Your task to perform on an android device: turn off picture-in-picture Image 0: 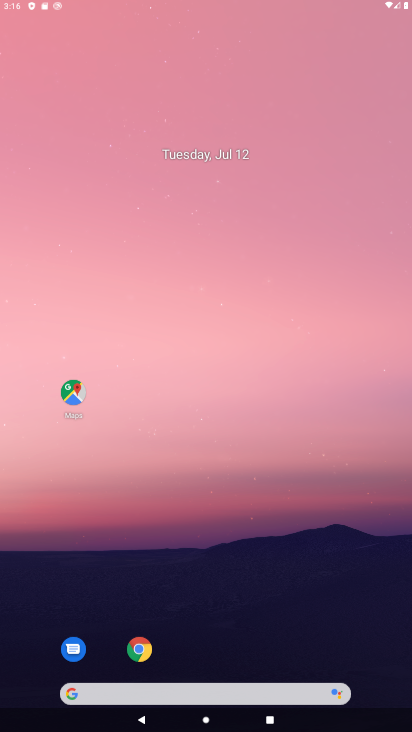
Step 0: press home button
Your task to perform on an android device: turn off picture-in-picture Image 1: 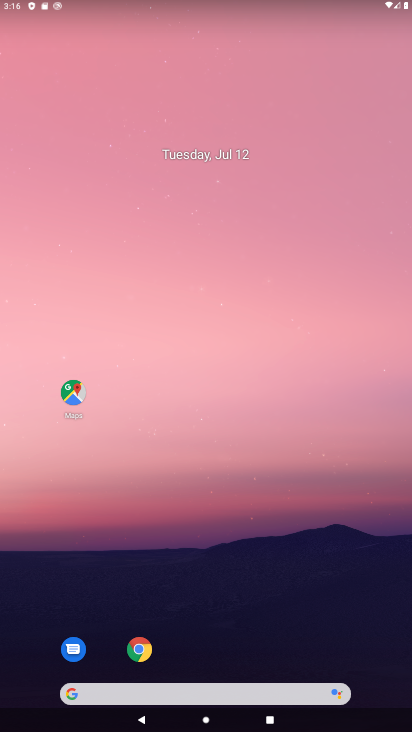
Step 1: click (137, 650)
Your task to perform on an android device: turn off picture-in-picture Image 2: 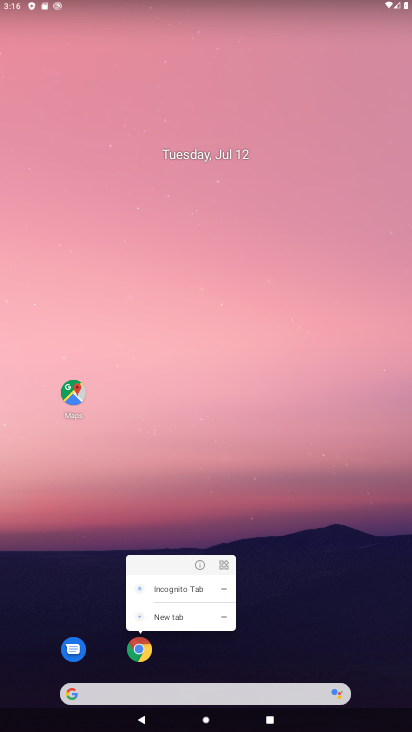
Step 2: click (194, 561)
Your task to perform on an android device: turn off picture-in-picture Image 3: 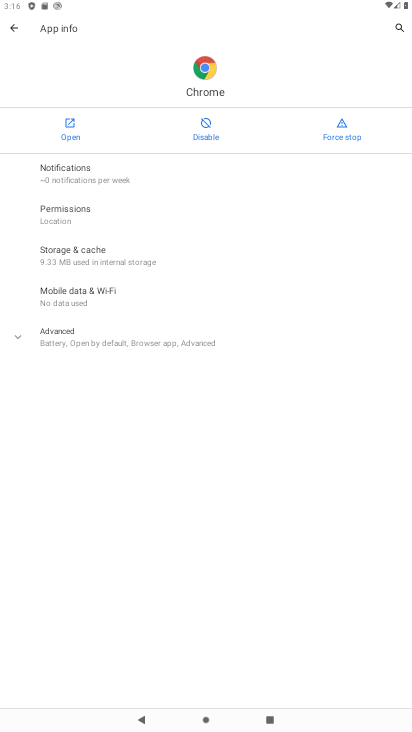
Step 3: click (16, 333)
Your task to perform on an android device: turn off picture-in-picture Image 4: 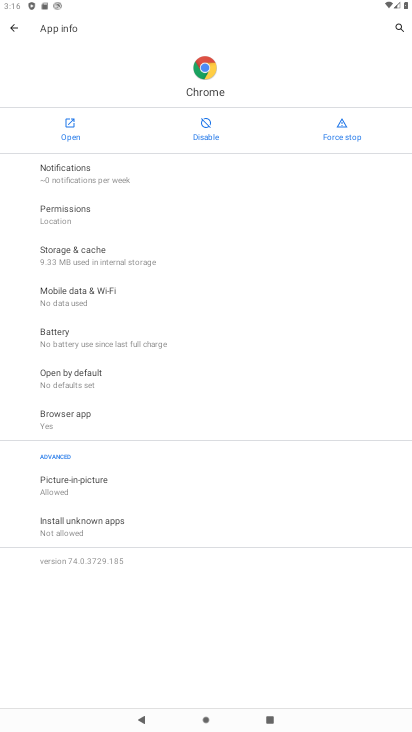
Step 4: click (89, 483)
Your task to perform on an android device: turn off picture-in-picture Image 5: 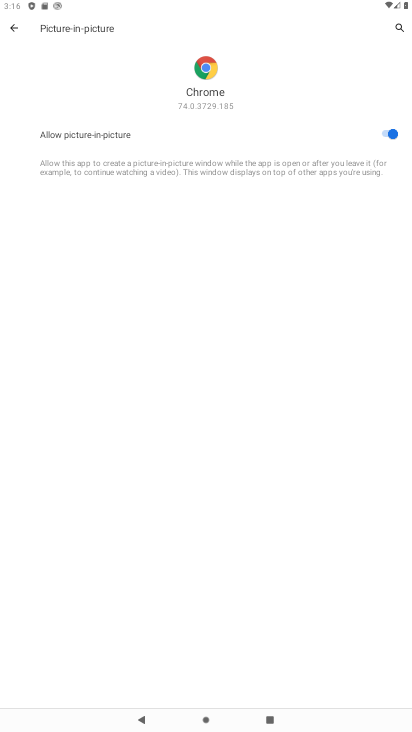
Step 5: click (388, 128)
Your task to perform on an android device: turn off picture-in-picture Image 6: 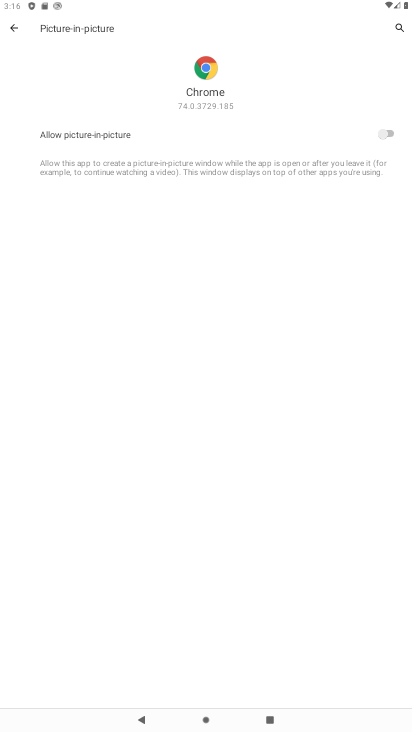
Step 6: task complete